Your task to perform on an android device: toggle show notifications on the lock screen Image 0: 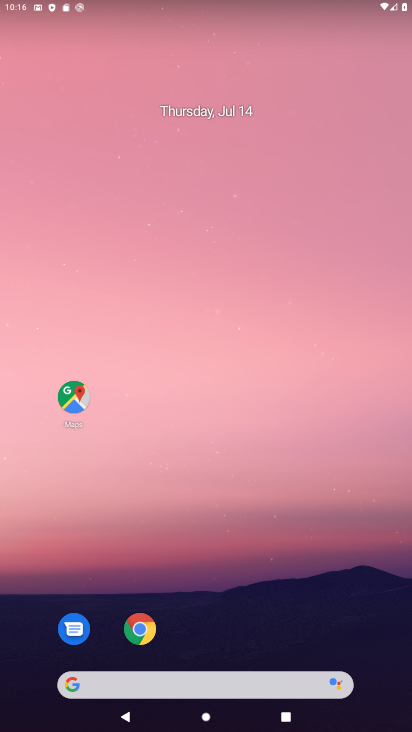
Step 0: drag from (255, 602) to (202, 169)
Your task to perform on an android device: toggle show notifications on the lock screen Image 1: 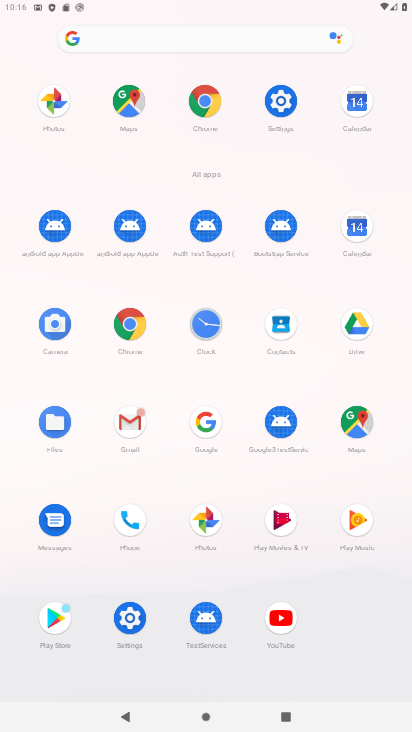
Step 1: click (284, 104)
Your task to perform on an android device: toggle show notifications on the lock screen Image 2: 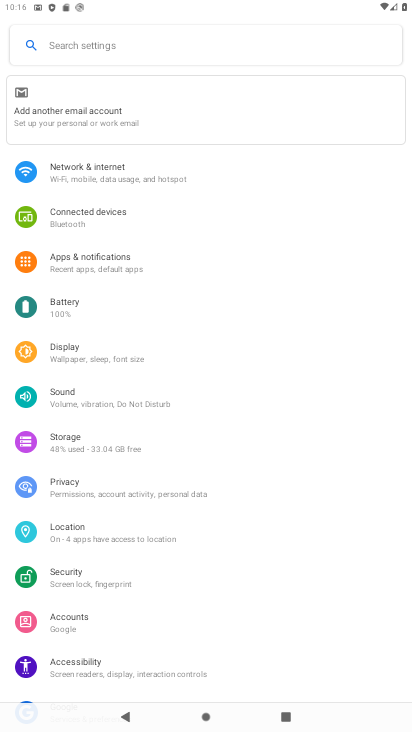
Step 2: click (127, 261)
Your task to perform on an android device: toggle show notifications on the lock screen Image 3: 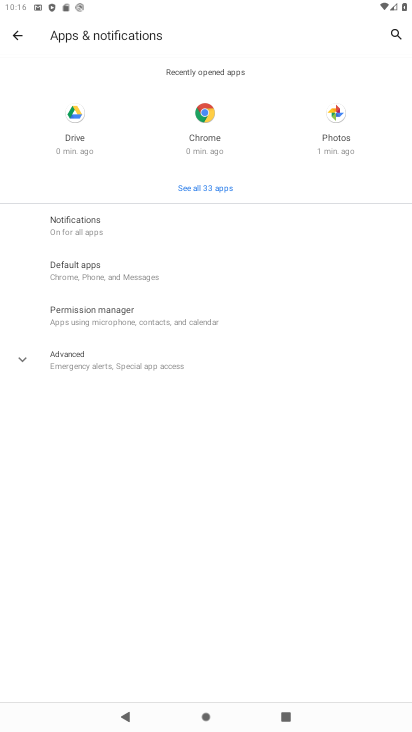
Step 3: click (119, 227)
Your task to perform on an android device: toggle show notifications on the lock screen Image 4: 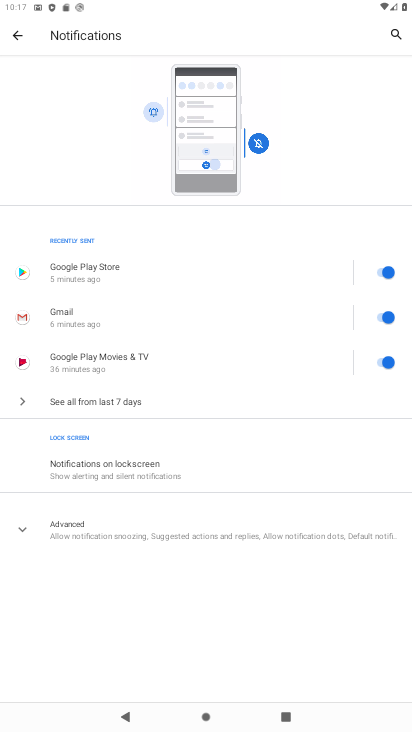
Step 4: click (187, 471)
Your task to perform on an android device: toggle show notifications on the lock screen Image 5: 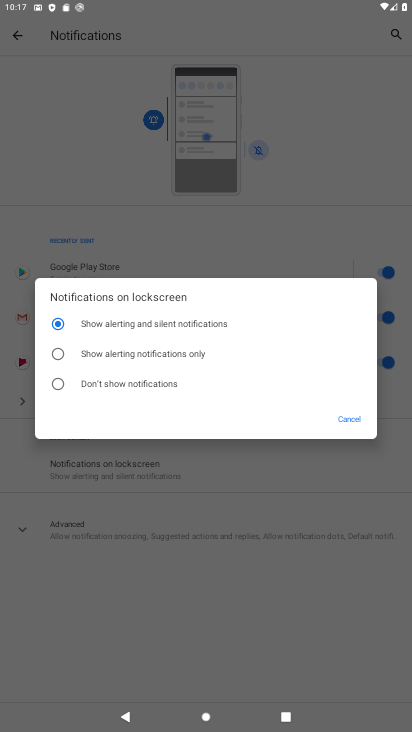
Step 5: click (172, 353)
Your task to perform on an android device: toggle show notifications on the lock screen Image 6: 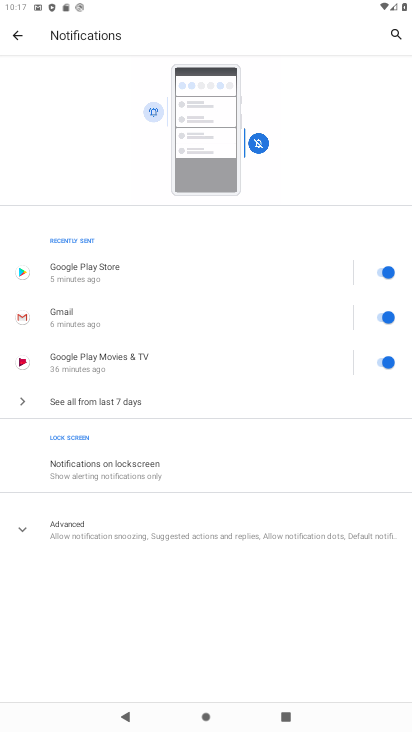
Step 6: task complete